Your task to perform on an android device: find photos in the google photos app Image 0: 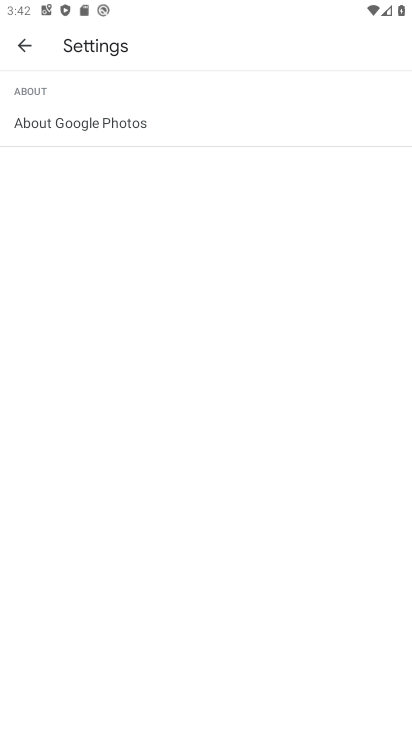
Step 0: press home button
Your task to perform on an android device: find photos in the google photos app Image 1: 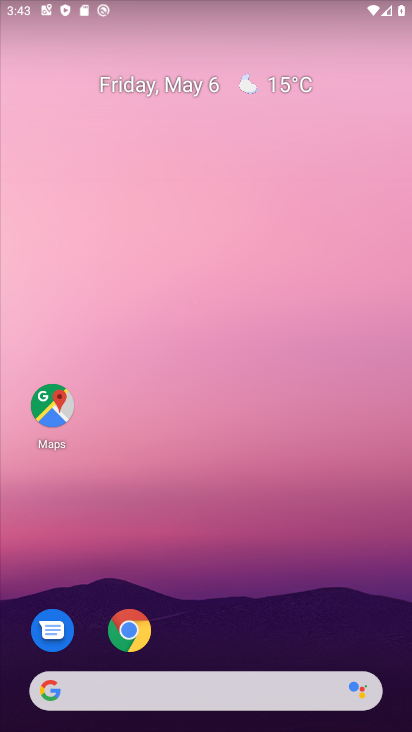
Step 1: drag from (213, 662) to (215, 191)
Your task to perform on an android device: find photos in the google photos app Image 2: 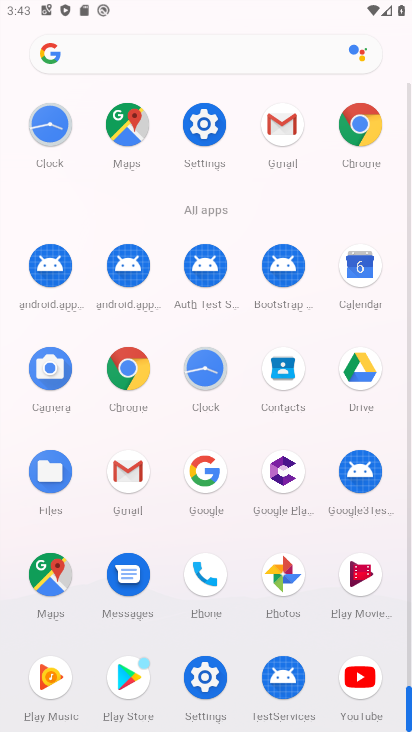
Step 2: click (292, 579)
Your task to perform on an android device: find photos in the google photos app Image 3: 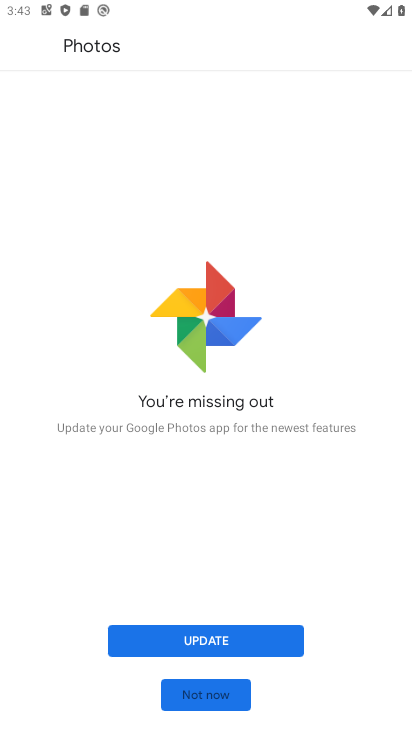
Step 3: click (185, 700)
Your task to perform on an android device: find photos in the google photos app Image 4: 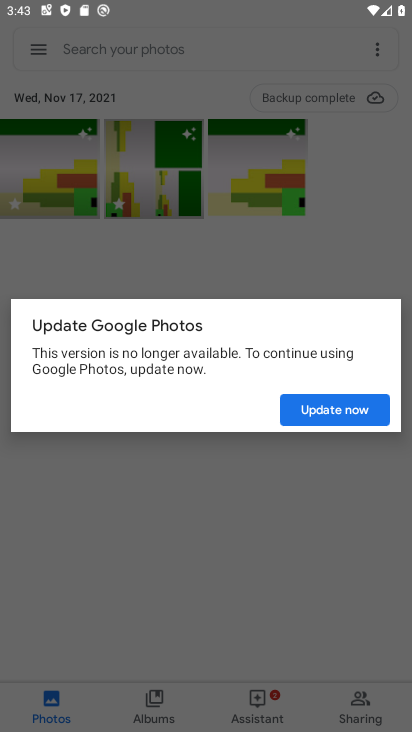
Step 4: click (324, 412)
Your task to perform on an android device: find photos in the google photos app Image 5: 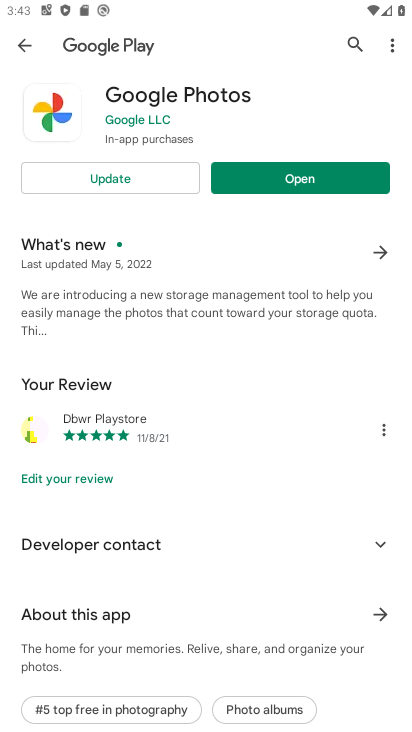
Step 5: click (280, 172)
Your task to perform on an android device: find photos in the google photos app Image 6: 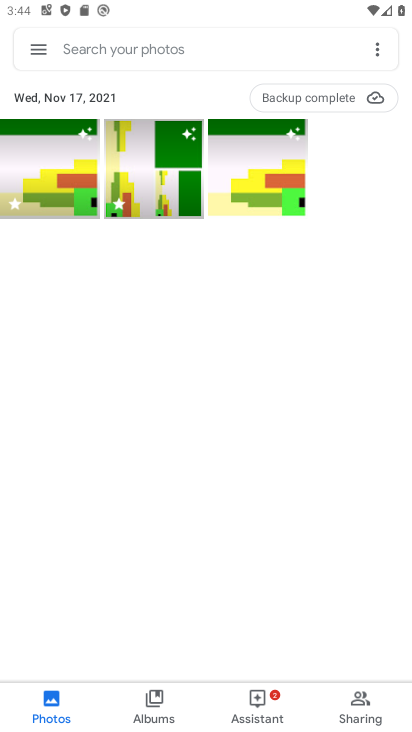
Step 6: task complete